Your task to perform on an android device: Go to wifi settings Image 0: 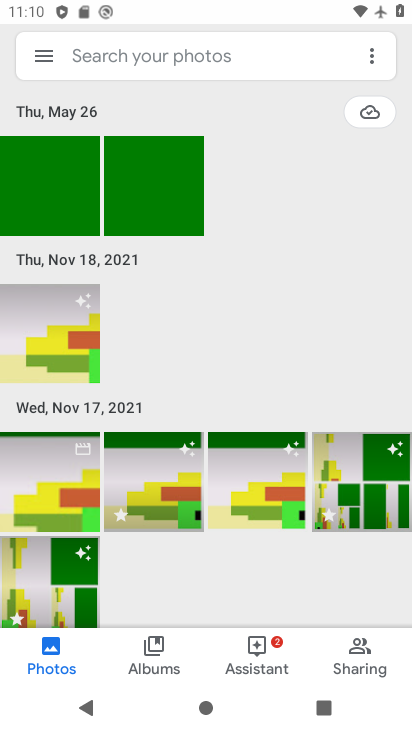
Step 0: press home button
Your task to perform on an android device: Go to wifi settings Image 1: 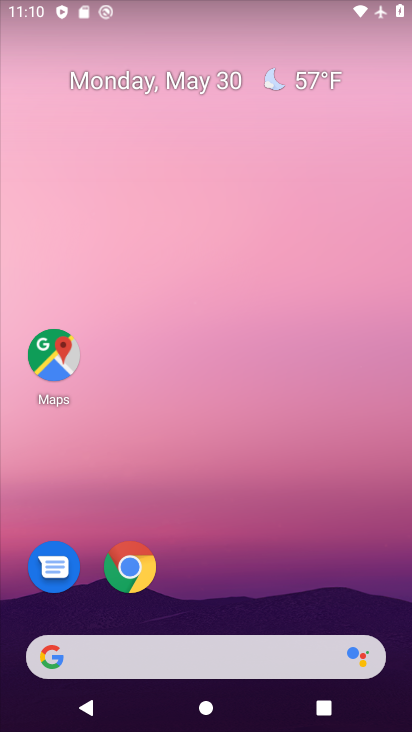
Step 1: drag from (215, 607) to (203, 18)
Your task to perform on an android device: Go to wifi settings Image 2: 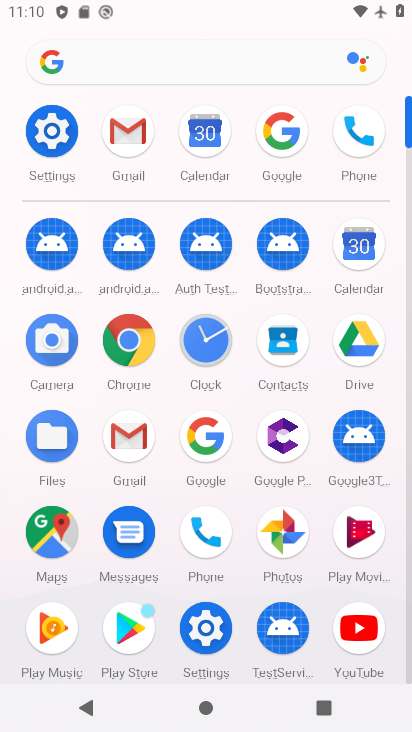
Step 2: click (58, 146)
Your task to perform on an android device: Go to wifi settings Image 3: 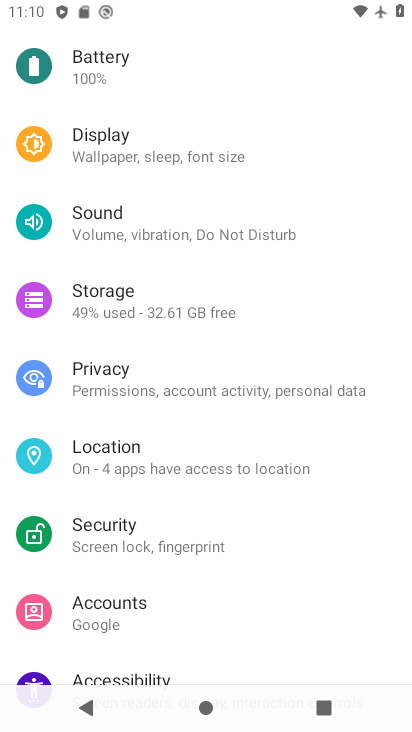
Step 3: drag from (147, 149) to (194, 548)
Your task to perform on an android device: Go to wifi settings Image 4: 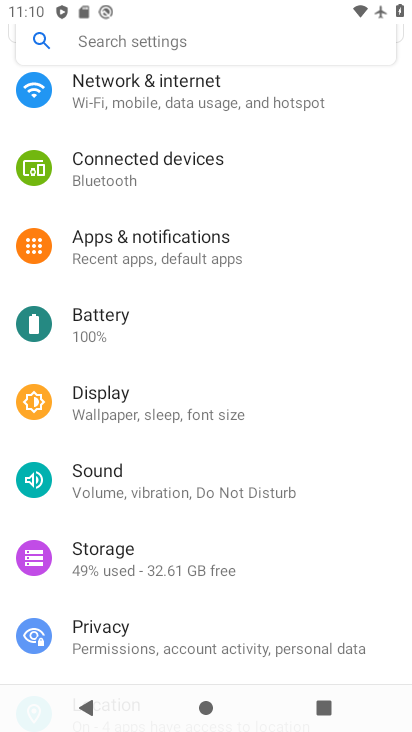
Step 4: click (114, 103)
Your task to perform on an android device: Go to wifi settings Image 5: 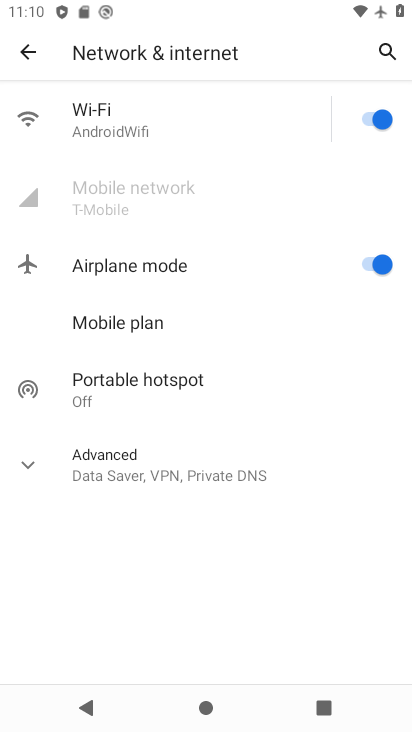
Step 5: click (125, 121)
Your task to perform on an android device: Go to wifi settings Image 6: 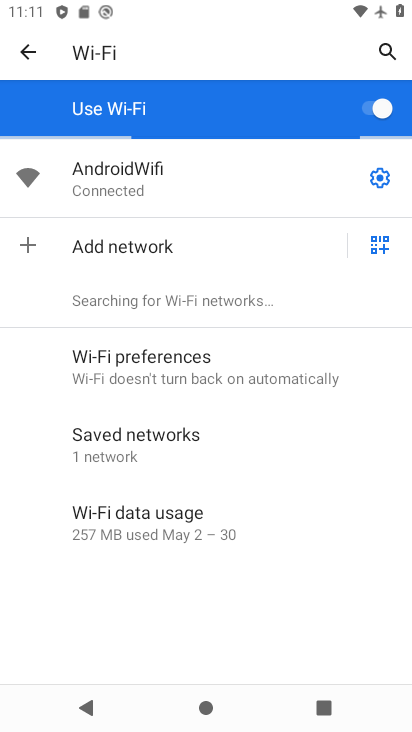
Step 6: task complete